Your task to perform on an android device: clear all cookies in the chrome app Image 0: 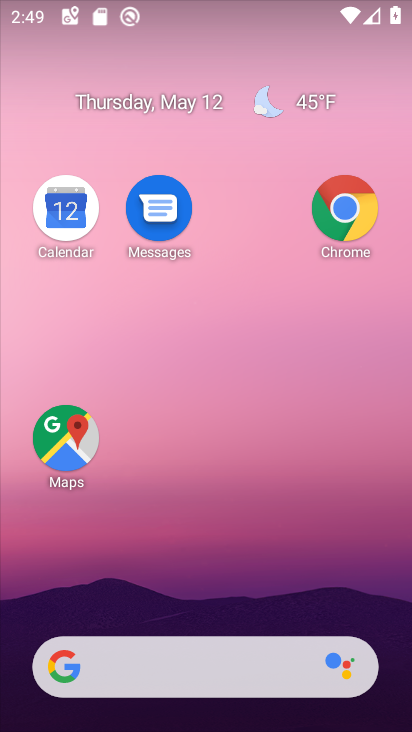
Step 0: drag from (180, 574) to (245, 118)
Your task to perform on an android device: clear all cookies in the chrome app Image 1: 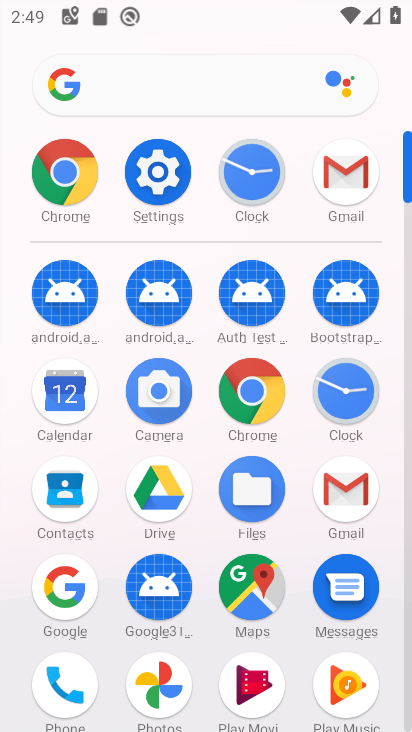
Step 1: click (245, 376)
Your task to perform on an android device: clear all cookies in the chrome app Image 2: 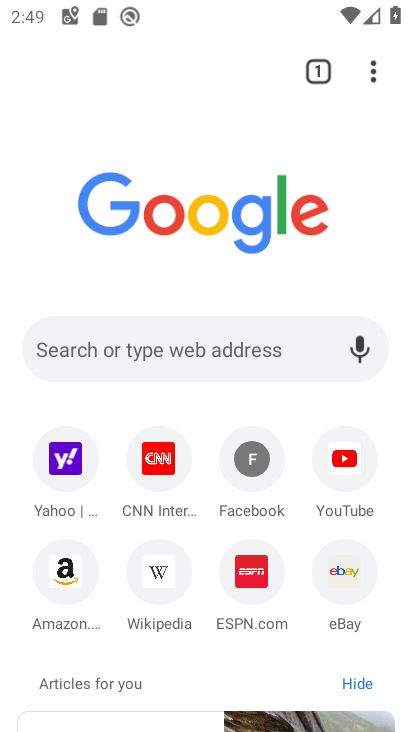
Step 2: click (373, 74)
Your task to perform on an android device: clear all cookies in the chrome app Image 3: 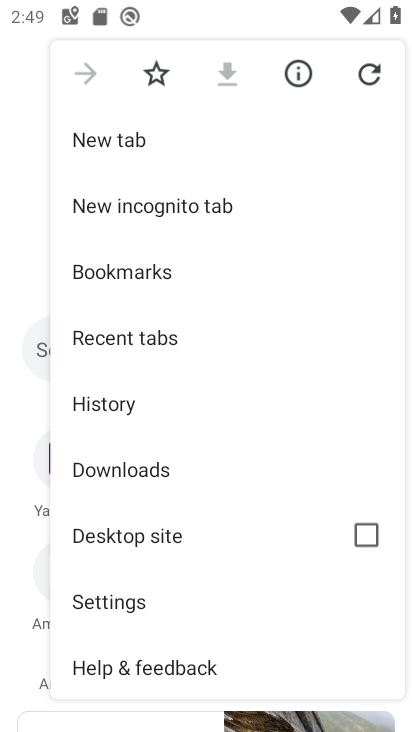
Step 3: click (128, 583)
Your task to perform on an android device: clear all cookies in the chrome app Image 4: 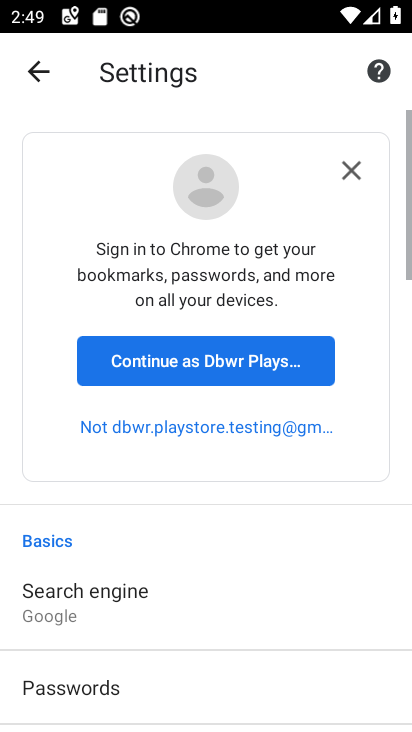
Step 4: drag from (206, 687) to (339, 191)
Your task to perform on an android device: clear all cookies in the chrome app Image 5: 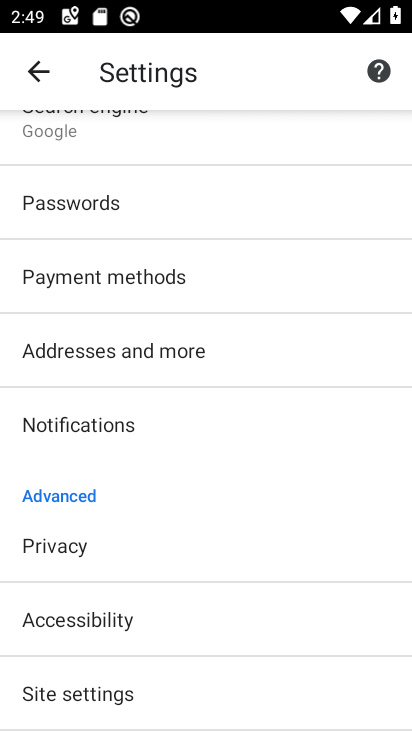
Step 5: click (33, 72)
Your task to perform on an android device: clear all cookies in the chrome app Image 6: 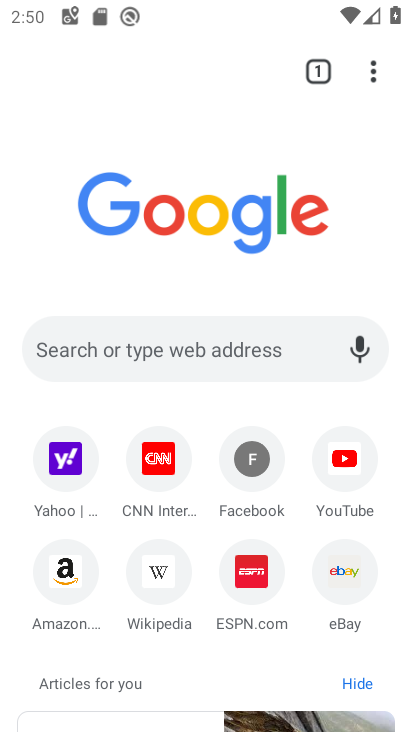
Step 6: click (367, 75)
Your task to perform on an android device: clear all cookies in the chrome app Image 7: 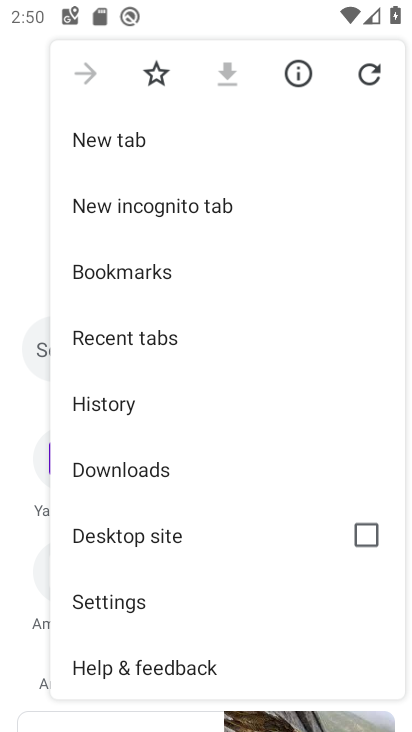
Step 7: click (162, 414)
Your task to perform on an android device: clear all cookies in the chrome app Image 8: 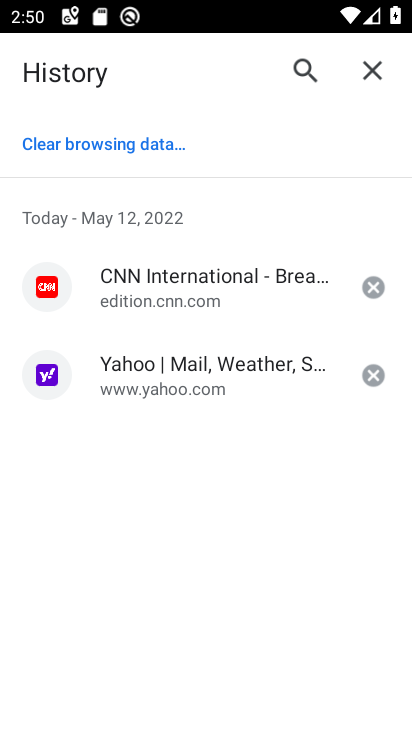
Step 8: drag from (209, 601) to (242, 163)
Your task to perform on an android device: clear all cookies in the chrome app Image 9: 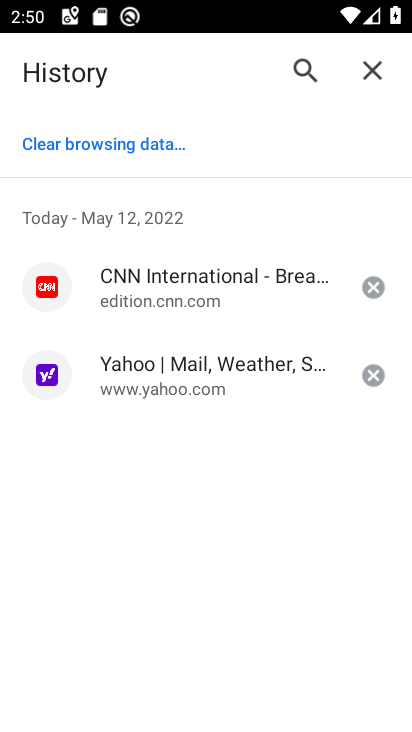
Step 9: click (82, 107)
Your task to perform on an android device: clear all cookies in the chrome app Image 10: 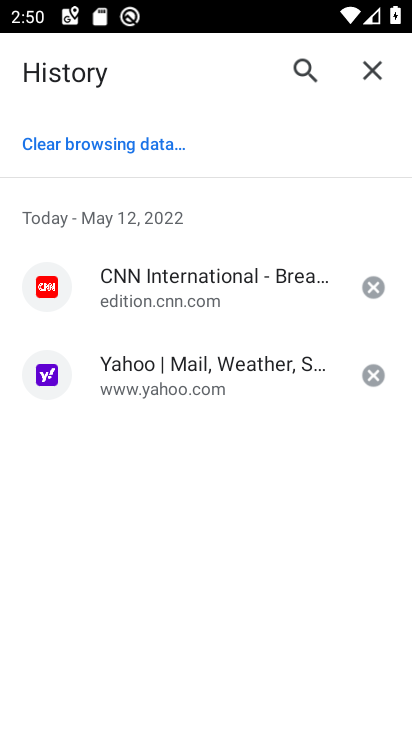
Step 10: click (89, 135)
Your task to perform on an android device: clear all cookies in the chrome app Image 11: 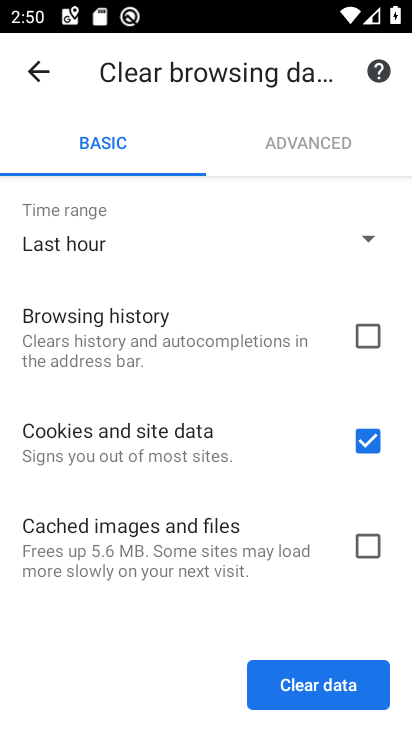
Step 11: click (267, 692)
Your task to perform on an android device: clear all cookies in the chrome app Image 12: 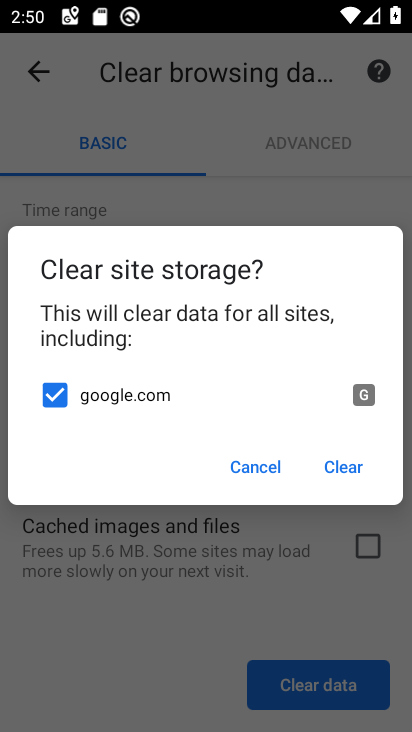
Step 12: click (329, 456)
Your task to perform on an android device: clear all cookies in the chrome app Image 13: 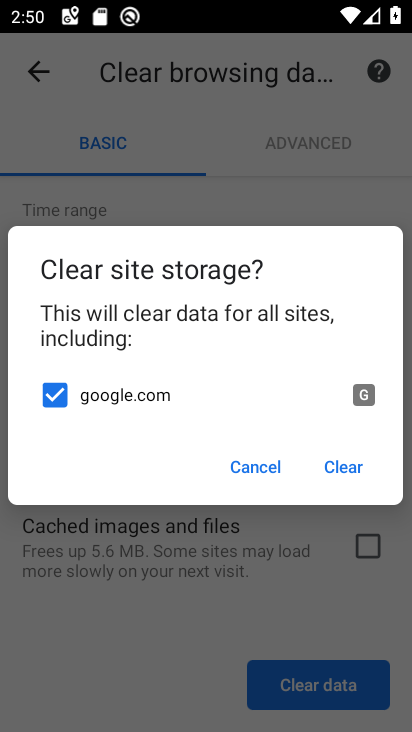
Step 13: click (331, 458)
Your task to perform on an android device: clear all cookies in the chrome app Image 14: 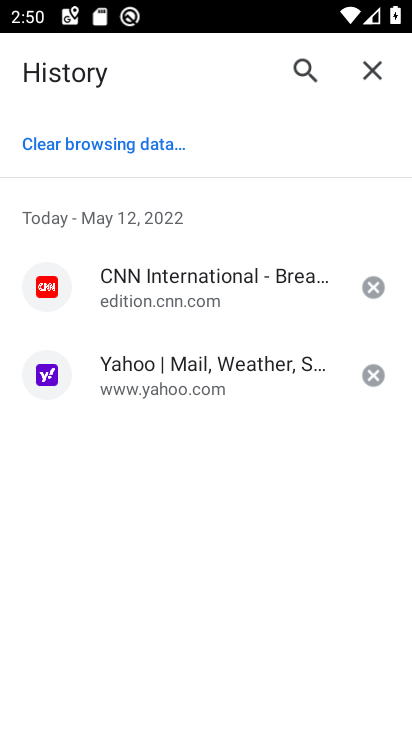
Step 14: task complete